Your task to perform on an android device: add a contact Image 0: 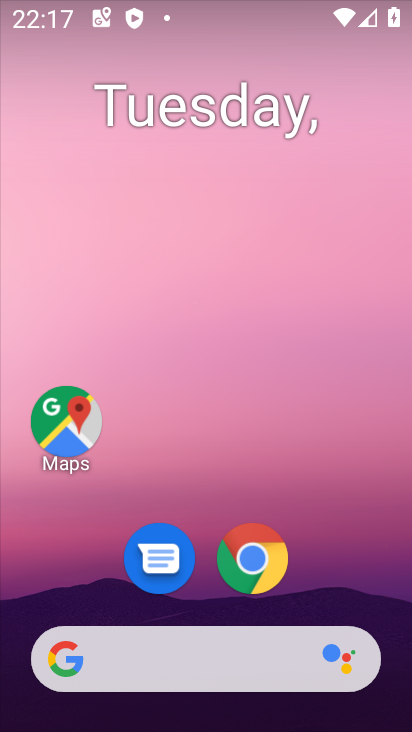
Step 0: drag from (321, 570) to (317, 55)
Your task to perform on an android device: add a contact Image 1: 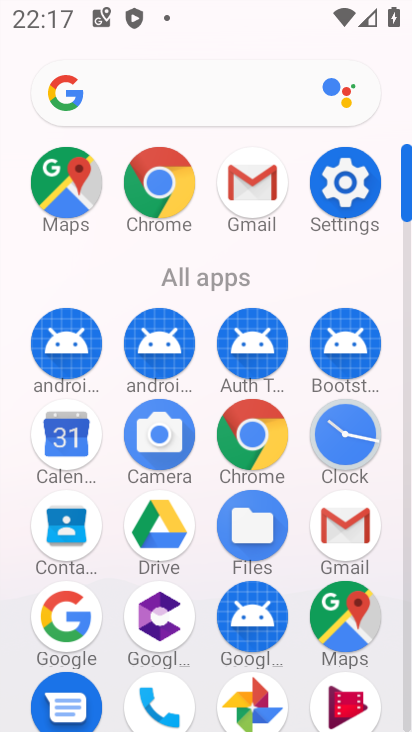
Step 1: click (67, 528)
Your task to perform on an android device: add a contact Image 2: 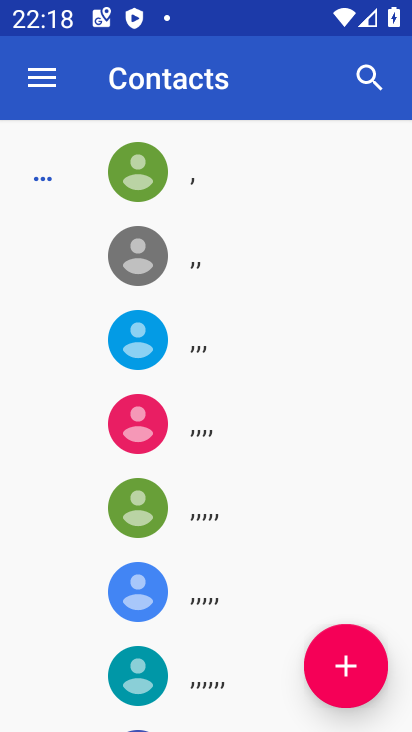
Step 2: click (355, 666)
Your task to perform on an android device: add a contact Image 3: 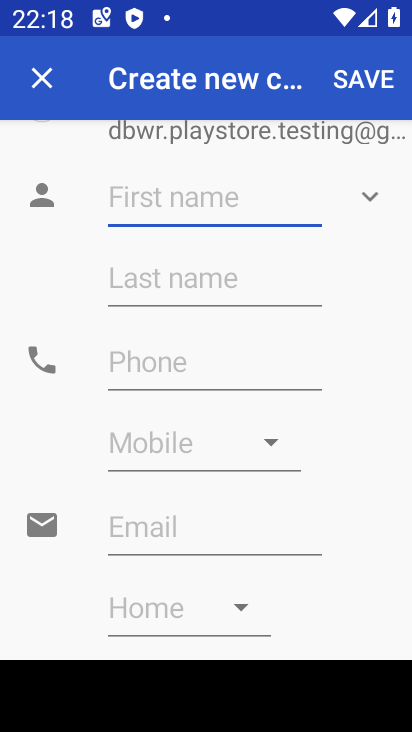
Step 3: type "yuhjnmkiolp"
Your task to perform on an android device: add a contact Image 4: 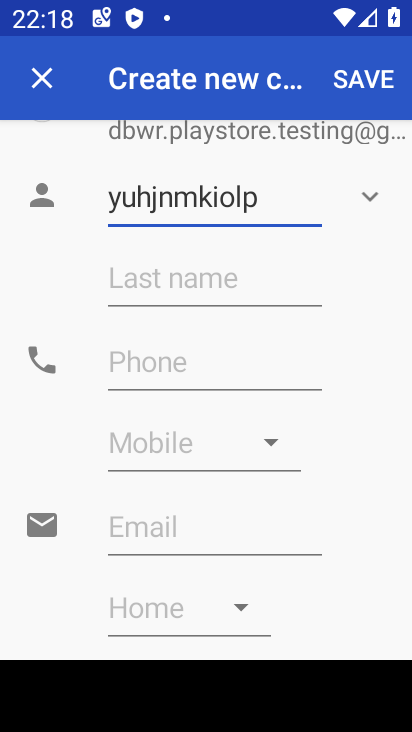
Step 4: click (179, 363)
Your task to perform on an android device: add a contact Image 5: 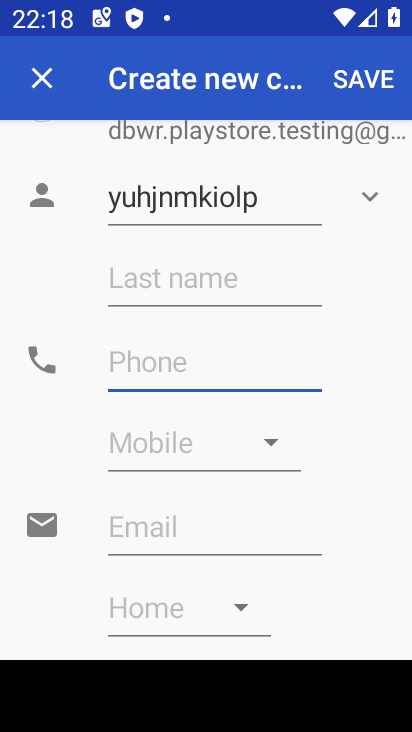
Step 5: type "6789054321"
Your task to perform on an android device: add a contact Image 6: 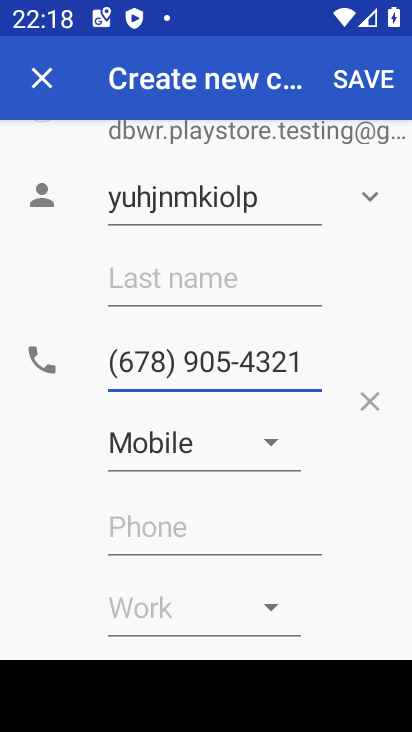
Step 6: click (348, 80)
Your task to perform on an android device: add a contact Image 7: 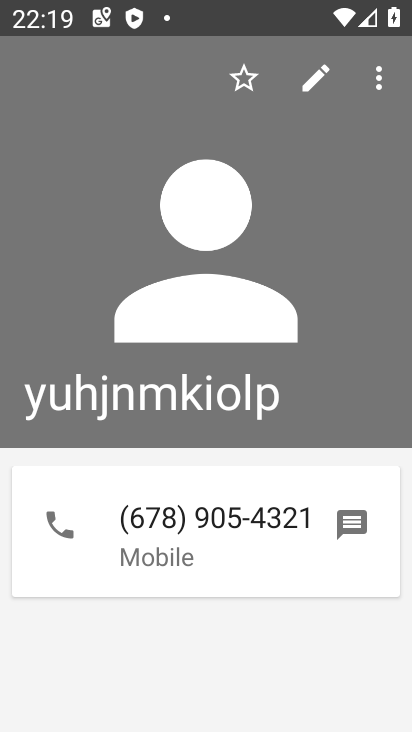
Step 7: task complete